Your task to perform on an android device: turn on priority inbox in the gmail app Image 0: 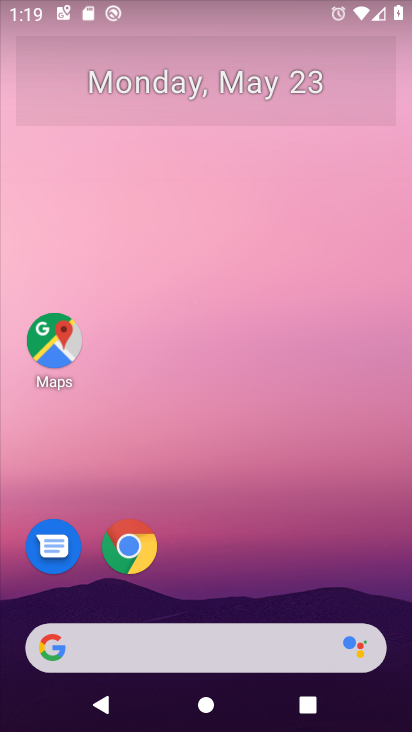
Step 0: drag from (251, 575) to (227, 114)
Your task to perform on an android device: turn on priority inbox in the gmail app Image 1: 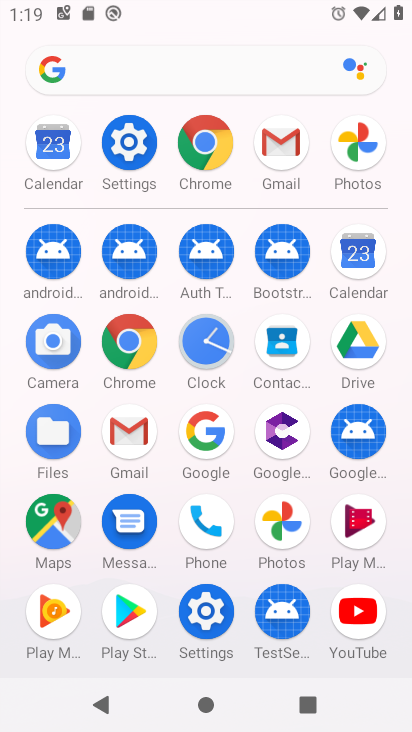
Step 1: click (130, 454)
Your task to perform on an android device: turn on priority inbox in the gmail app Image 2: 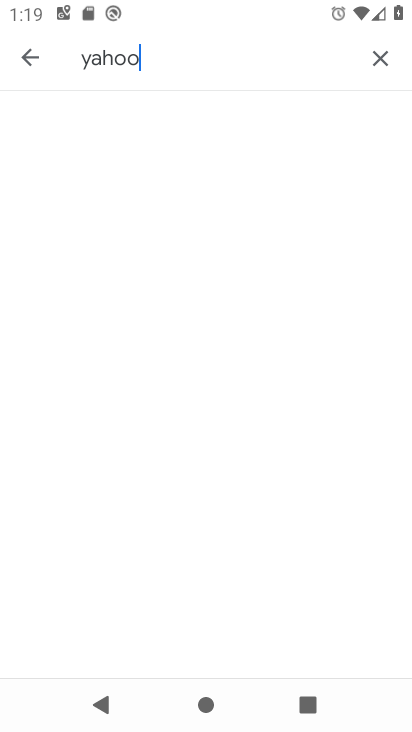
Step 2: press home button
Your task to perform on an android device: turn on priority inbox in the gmail app Image 3: 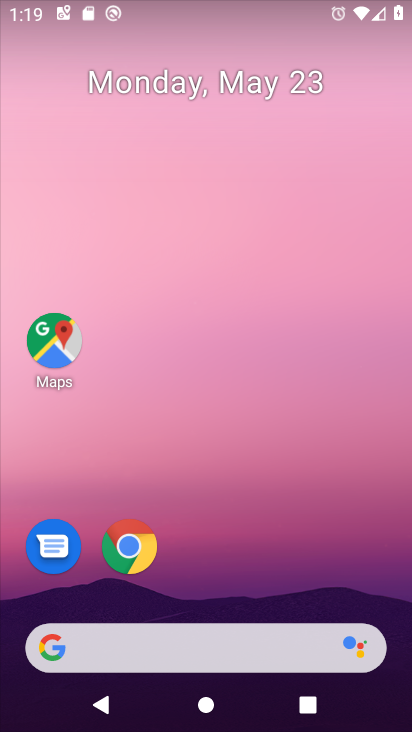
Step 3: drag from (179, 623) to (186, 411)
Your task to perform on an android device: turn on priority inbox in the gmail app Image 4: 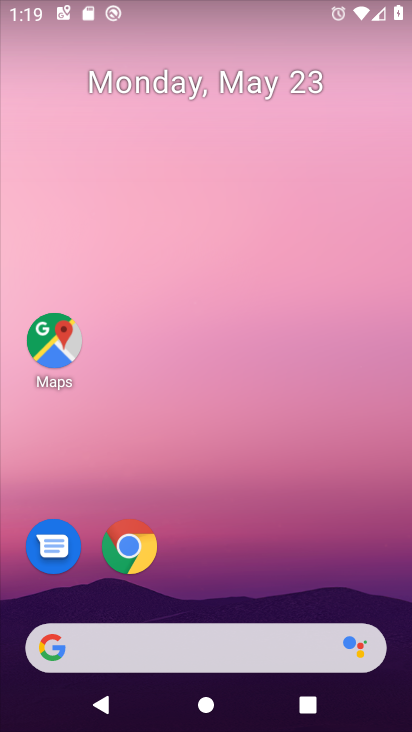
Step 4: drag from (265, 543) to (395, 7)
Your task to perform on an android device: turn on priority inbox in the gmail app Image 5: 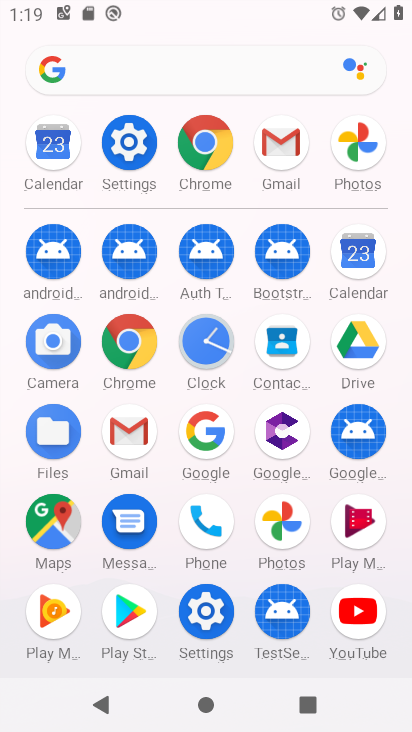
Step 5: click (138, 435)
Your task to perform on an android device: turn on priority inbox in the gmail app Image 6: 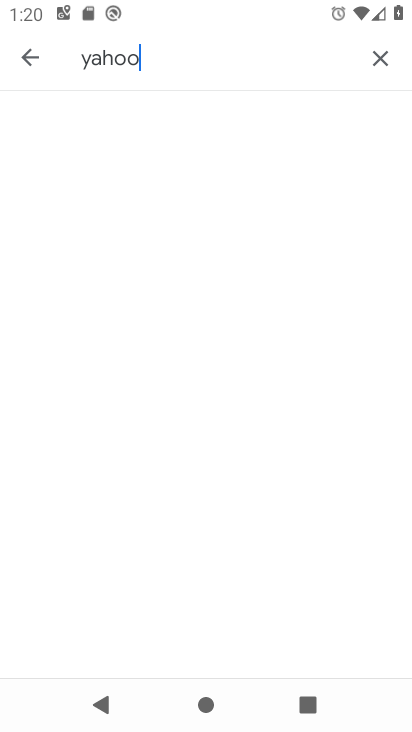
Step 6: click (371, 64)
Your task to perform on an android device: turn on priority inbox in the gmail app Image 7: 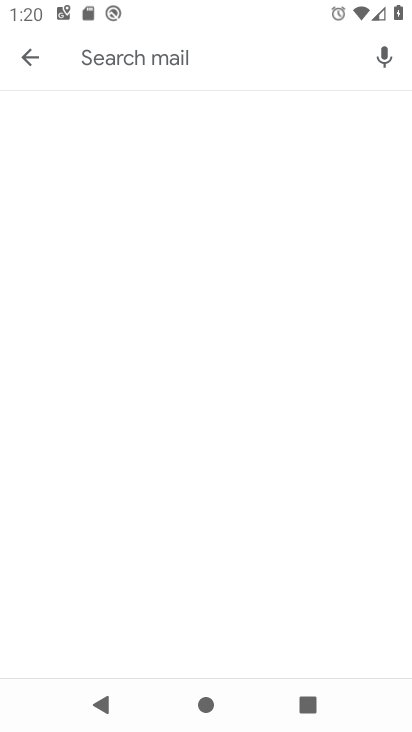
Step 7: click (36, 50)
Your task to perform on an android device: turn on priority inbox in the gmail app Image 8: 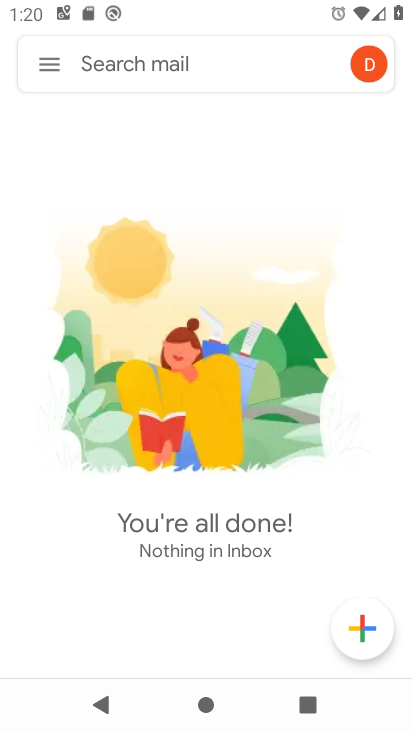
Step 8: click (46, 61)
Your task to perform on an android device: turn on priority inbox in the gmail app Image 9: 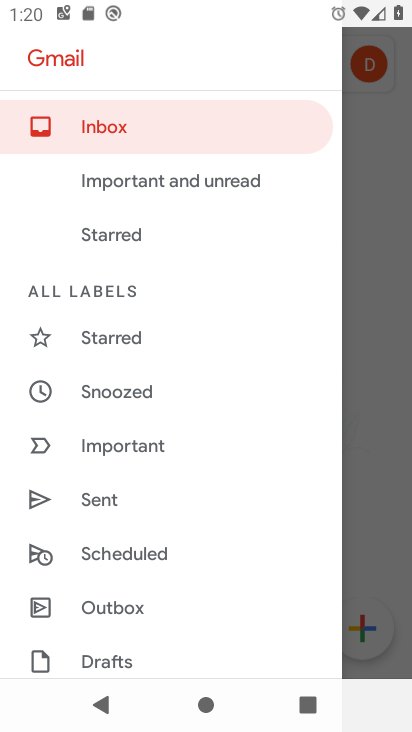
Step 9: click (166, 574)
Your task to perform on an android device: turn on priority inbox in the gmail app Image 10: 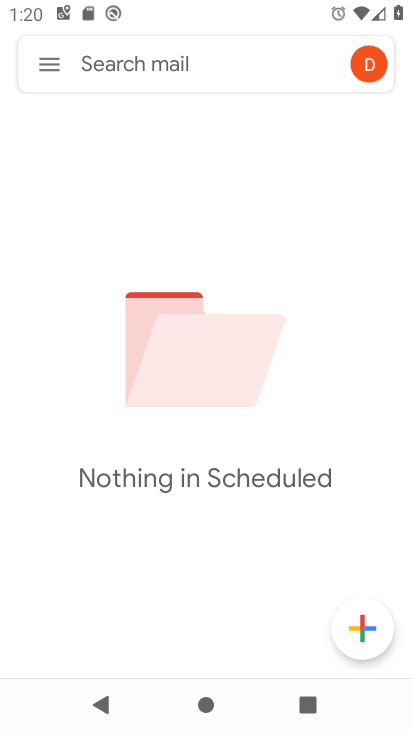
Step 10: click (42, 72)
Your task to perform on an android device: turn on priority inbox in the gmail app Image 11: 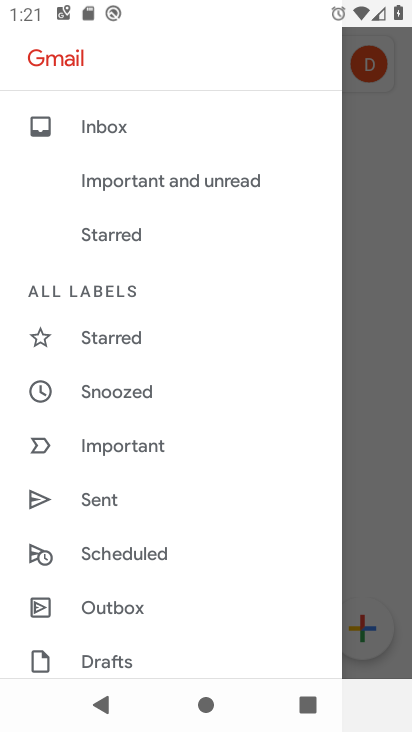
Step 11: click (138, 302)
Your task to perform on an android device: turn on priority inbox in the gmail app Image 12: 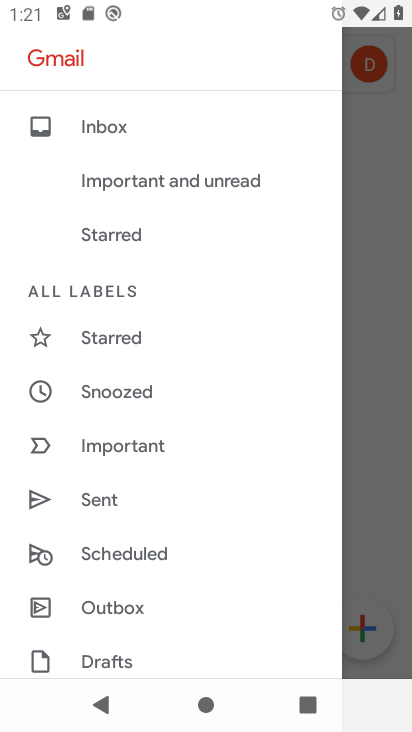
Step 12: drag from (194, 577) to (159, 7)
Your task to perform on an android device: turn on priority inbox in the gmail app Image 13: 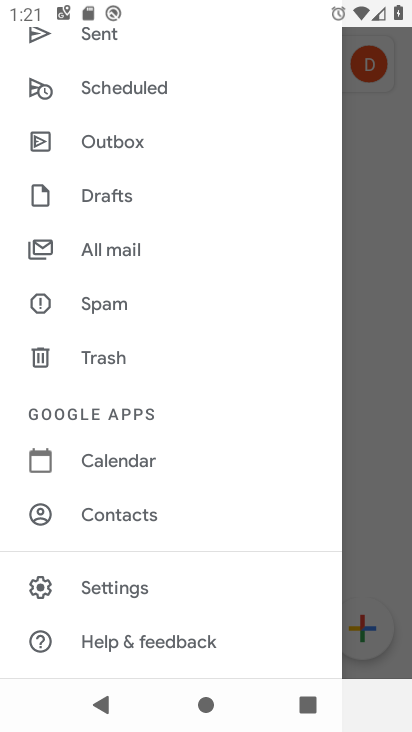
Step 13: click (139, 593)
Your task to perform on an android device: turn on priority inbox in the gmail app Image 14: 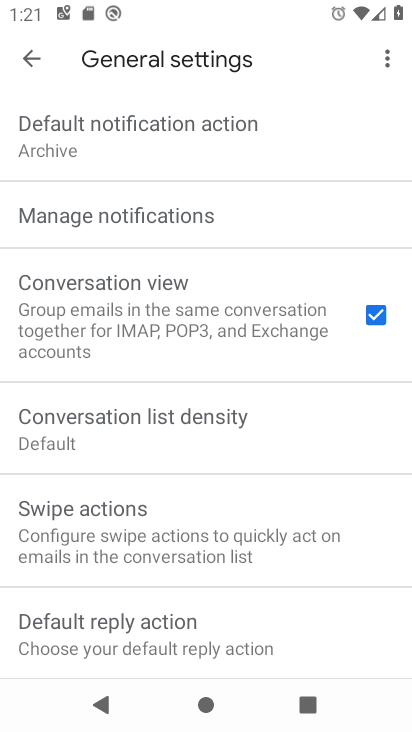
Step 14: click (24, 65)
Your task to perform on an android device: turn on priority inbox in the gmail app Image 15: 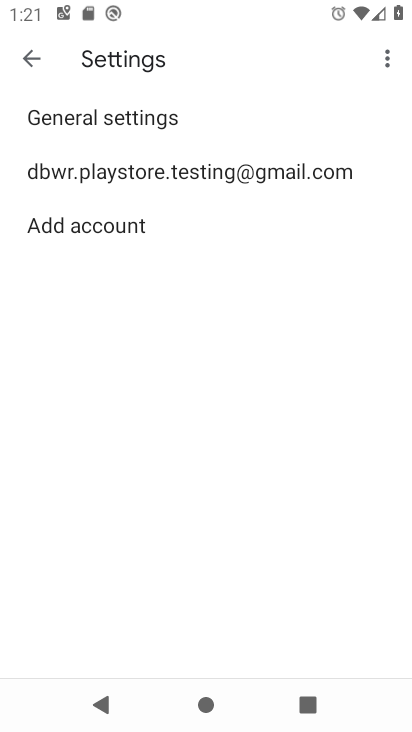
Step 15: click (116, 168)
Your task to perform on an android device: turn on priority inbox in the gmail app Image 16: 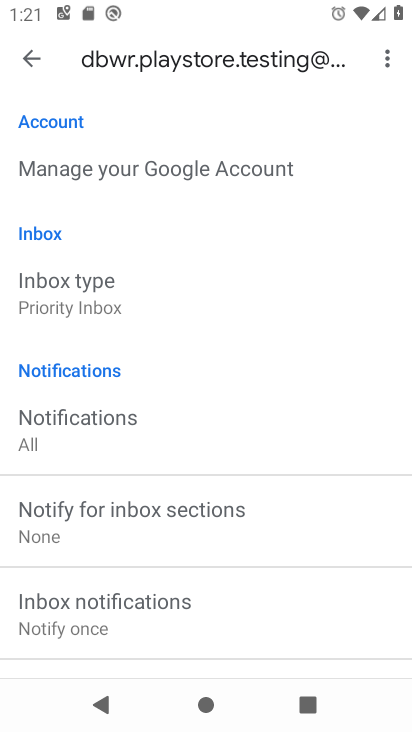
Step 16: click (117, 294)
Your task to perform on an android device: turn on priority inbox in the gmail app Image 17: 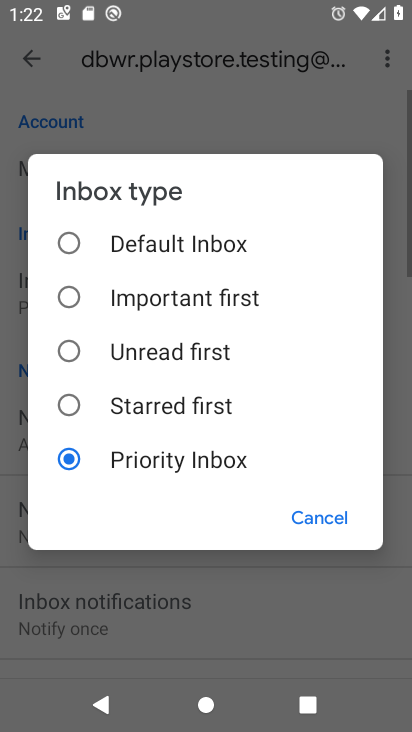
Step 17: click (159, 296)
Your task to perform on an android device: turn on priority inbox in the gmail app Image 18: 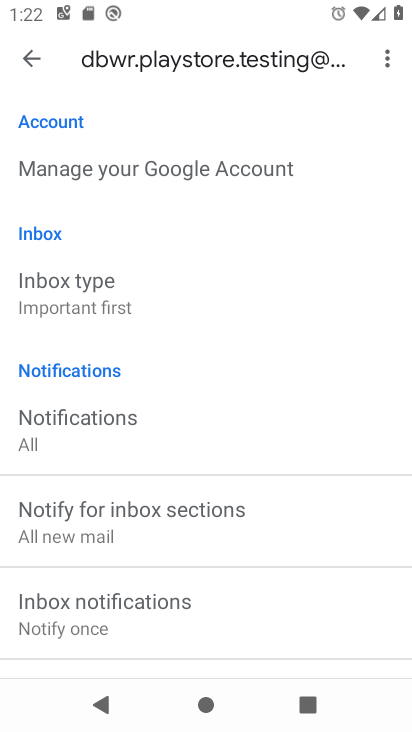
Step 18: task complete